Your task to perform on an android device: Open notification settings Image 0: 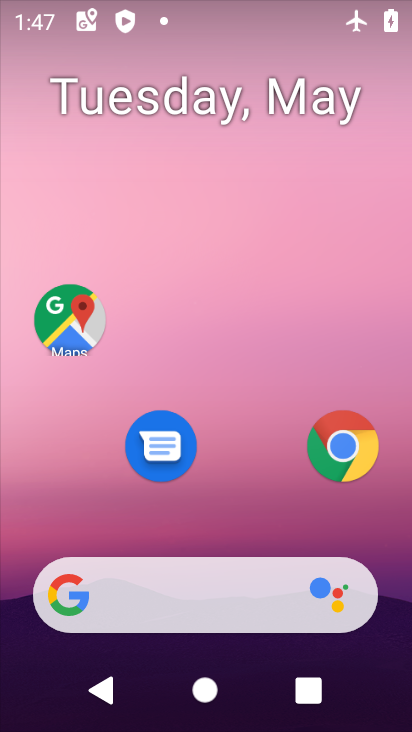
Step 0: drag from (219, 562) to (131, 52)
Your task to perform on an android device: Open notification settings Image 1: 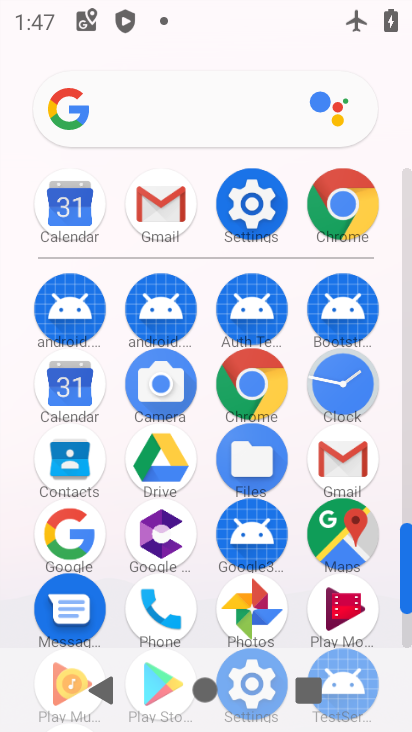
Step 1: drag from (207, 630) to (186, 324)
Your task to perform on an android device: Open notification settings Image 2: 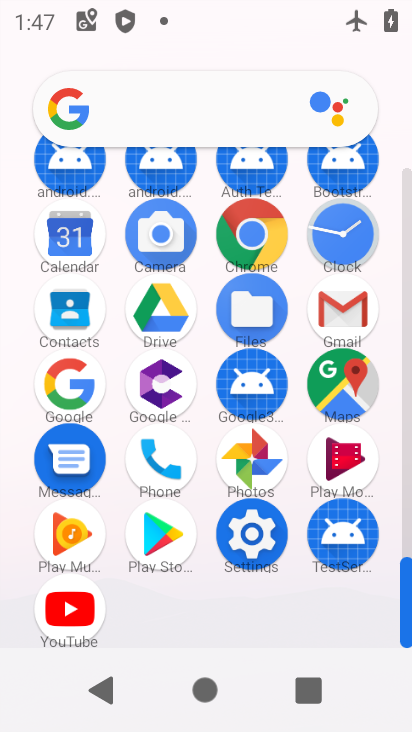
Step 2: click (247, 551)
Your task to perform on an android device: Open notification settings Image 3: 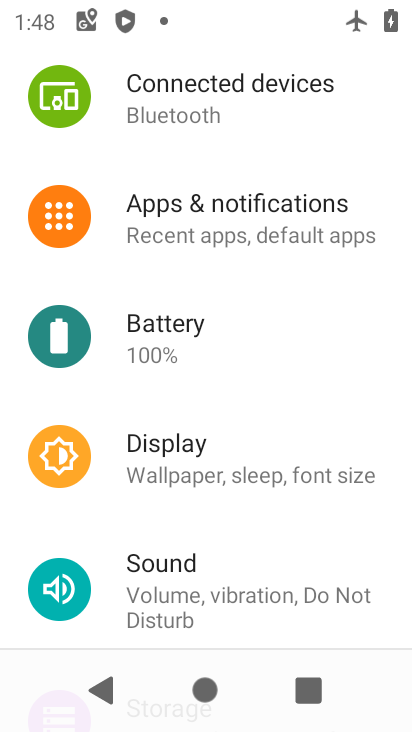
Step 3: click (176, 229)
Your task to perform on an android device: Open notification settings Image 4: 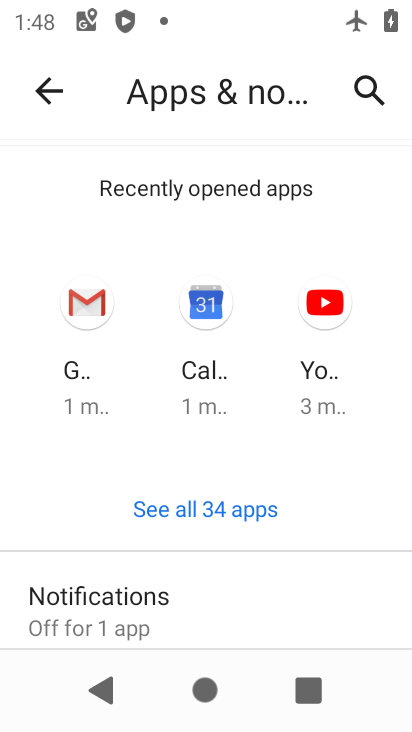
Step 4: click (157, 599)
Your task to perform on an android device: Open notification settings Image 5: 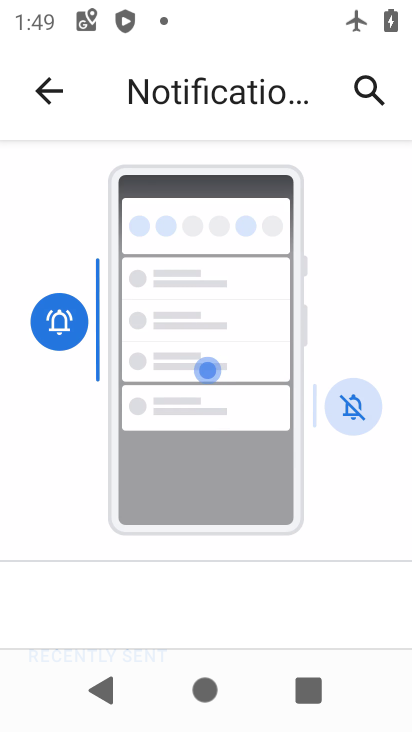
Step 5: task complete